Your task to perform on an android device: add a label to a message in the gmail app Image 0: 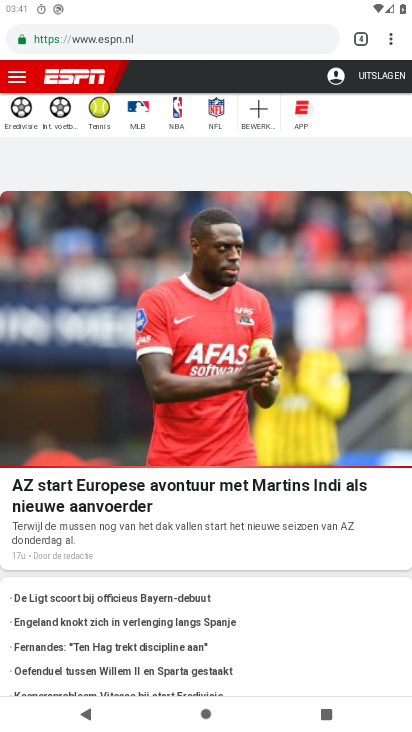
Step 0: press home button
Your task to perform on an android device: add a label to a message in the gmail app Image 1: 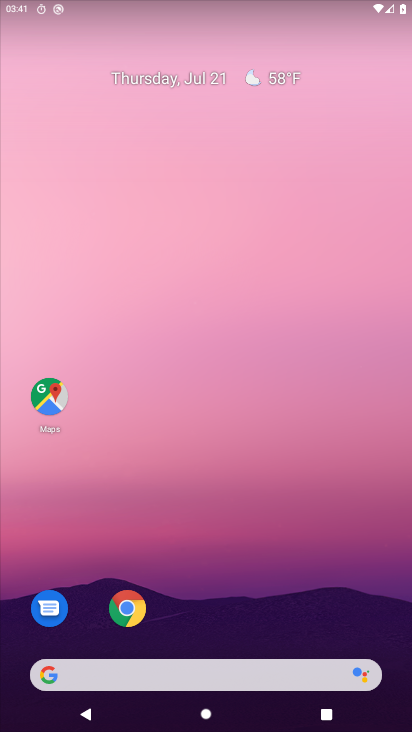
Step 1: drag from (206, 627) to (275, 138)
Your task to perform on an android device: add a label to a message in the gmail app Image 2: 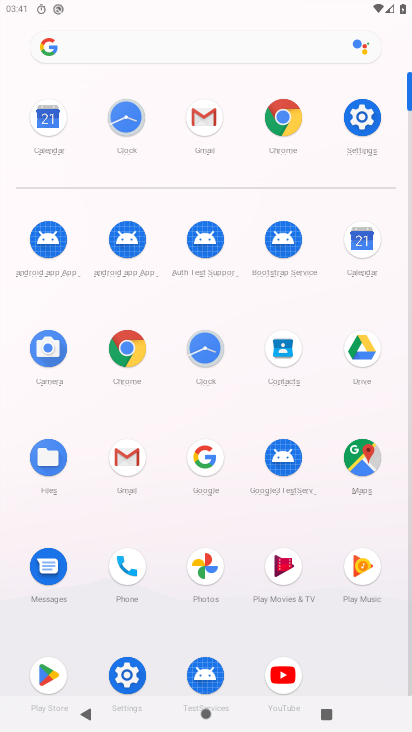
Step 2: click (202, 111)
Your task to perform on an android device: add a label to a message in the gmail app Image 3: 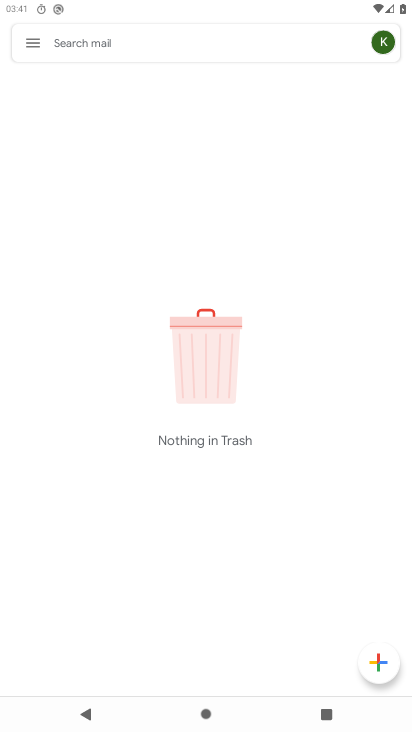
Step 3: task complete